Your task to perform on an android device: Open the Play Movies app and select the watchlist tab. Image 0: 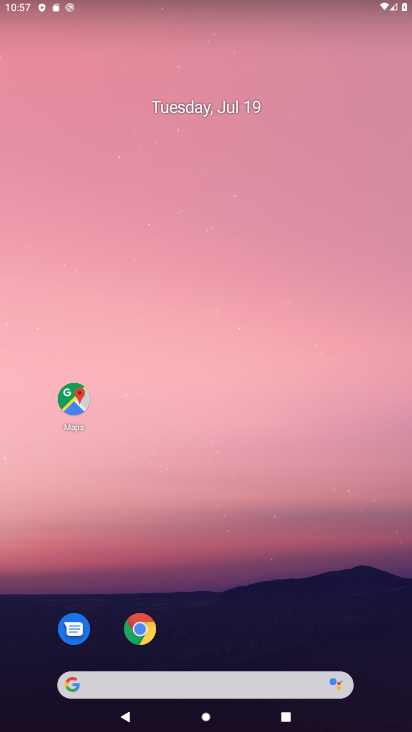
Step 0: drag from (367, 721) to (314, 110)
Your task to perform on an android device: Open the Play Movies app and select the watchlist tab. Image 1: 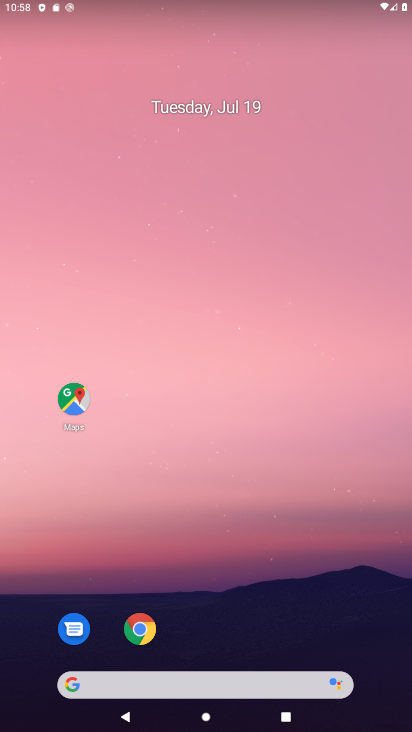
Step 1: drag from (376, 718) to (250, 30)
Your task to perform on an android device: Open the Play Movies app and select the watchlist tab. Image 2: 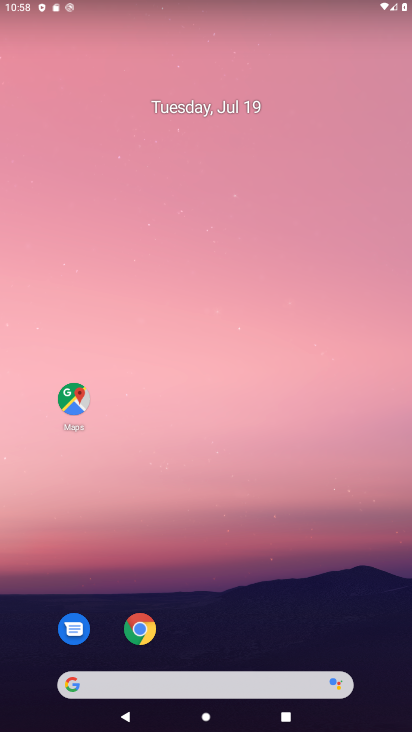
Step 2: drag from (398, 699) to (331, 9)
Your task to perform on an android device: Open the Play Movies app and select the watchlist tab. Image 3: 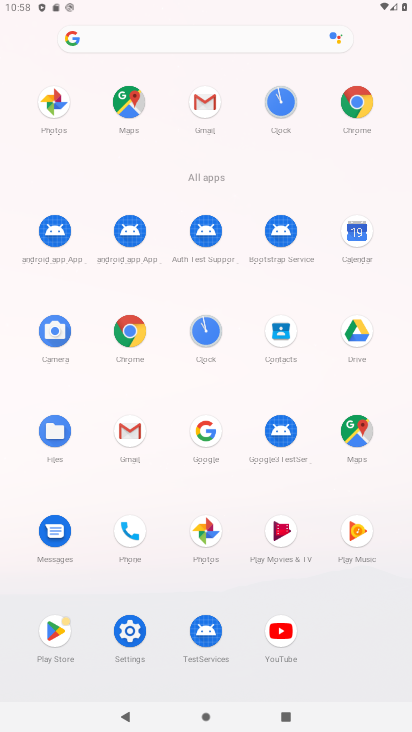
Step 3: click (292, 541)
Your task to perform on an android device: Open the Play Movies app and select the watchlist tab. Image 4: 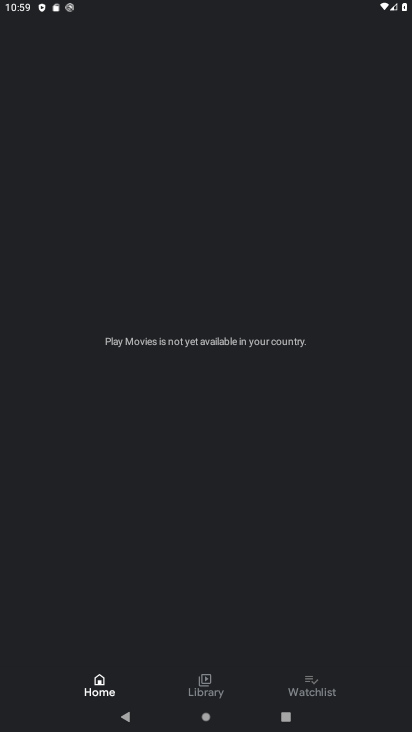
Step 4: click (308, 687)
Your task to perform on an android device: Open the Play Movies app and select the watchlist tab. Image 5: 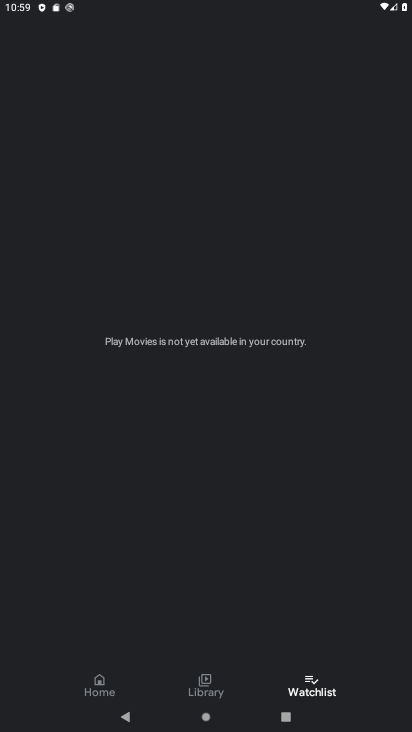
Step 5: task complete